Your task to perform on an android device: toggle pop-ups in chrome Image 0: 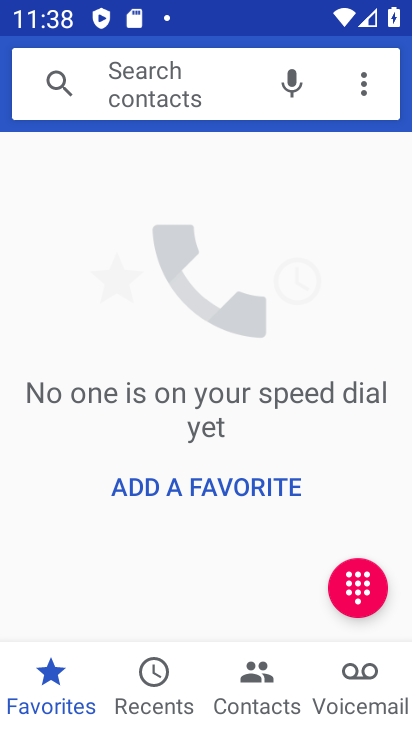
Step 0: press back button
Your task to perform on an android device: toggle pop-ups in chrome Image 1: 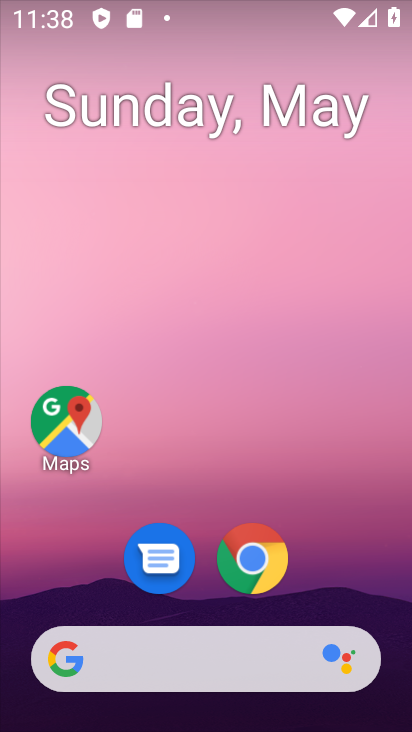
Step 1: drag from (347, 546) to (349, 107)
Your task to perform on an android device: toggle pop-ups in chrome Image 2: 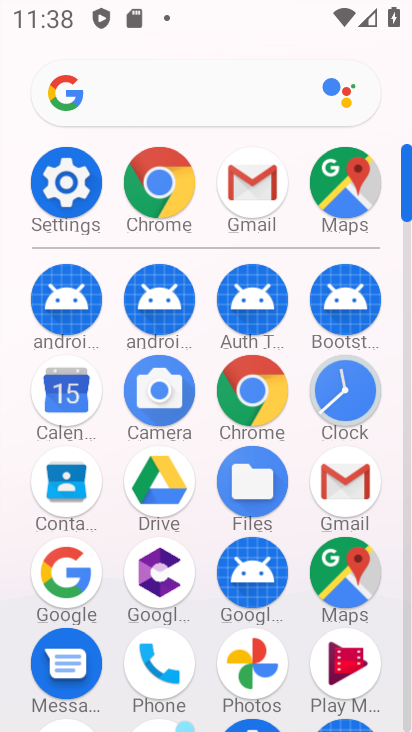
Step 2: click (266, 397)
Your task to perform on an android device: toggle pop-ups in chrome Image 3: 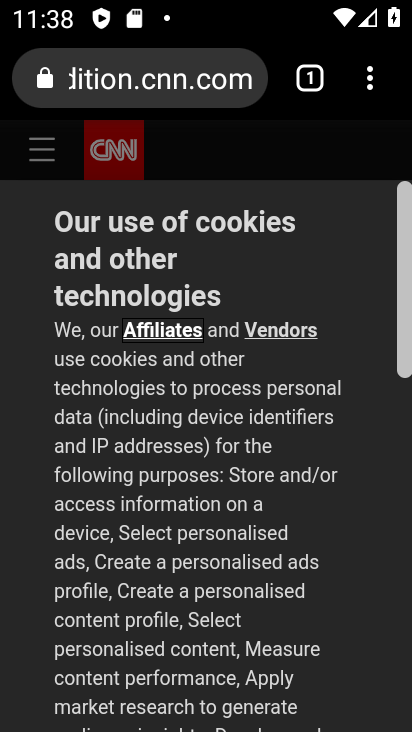
Step 3: click (365, 87)
Your task to perform on an android device: toggle pop-ups in chrome Image 4: 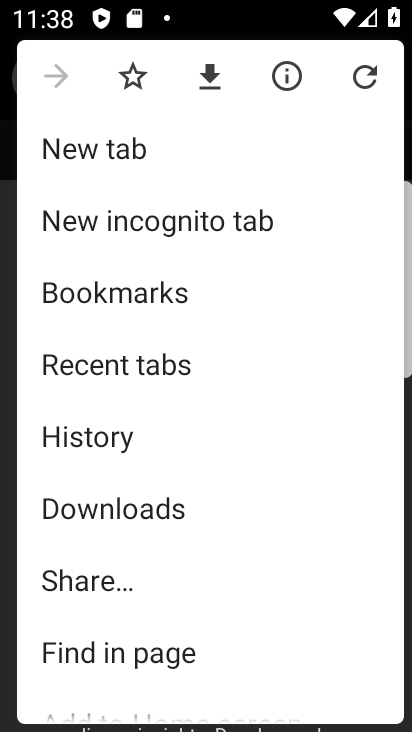
Step 4: drag from (311, 601) to (336, 421)
Your task to perform on an android device: toggle pop-ups in chrome Image 5: 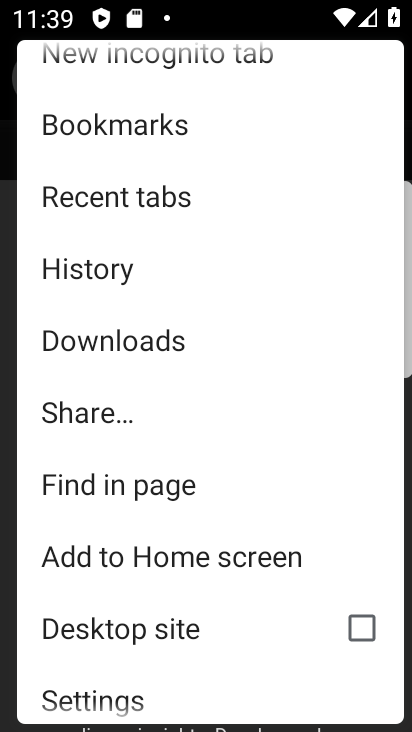
Step 5: drag from (298, 644) to (329, 428)
Your task to perform on an android device: toggle pop-ups in chrome Image 6: 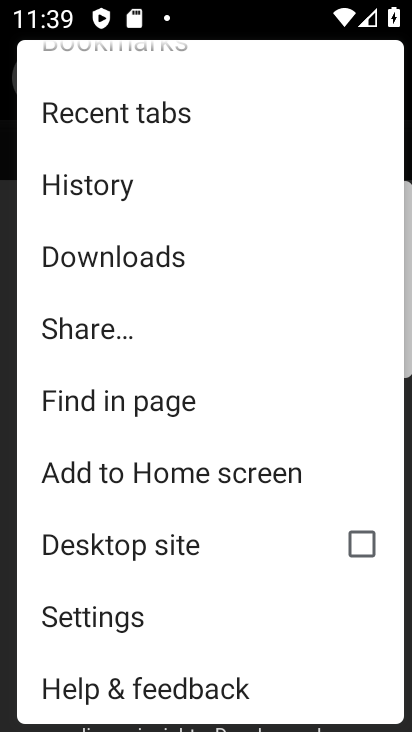
Step 6: click (141, 628)
Your task to perform on an android device: toggle pop-ups in chrome Image 7: 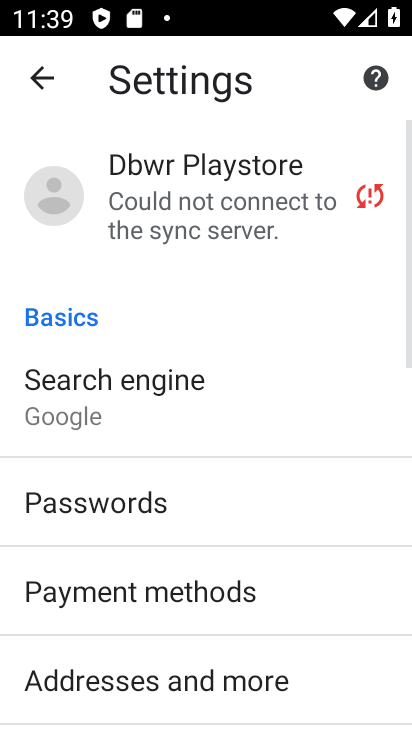
Step 7: drag from (347, 643) to (356, 455)
Your task to perform on an android device: toggle pop-ups in chrome Image 8: 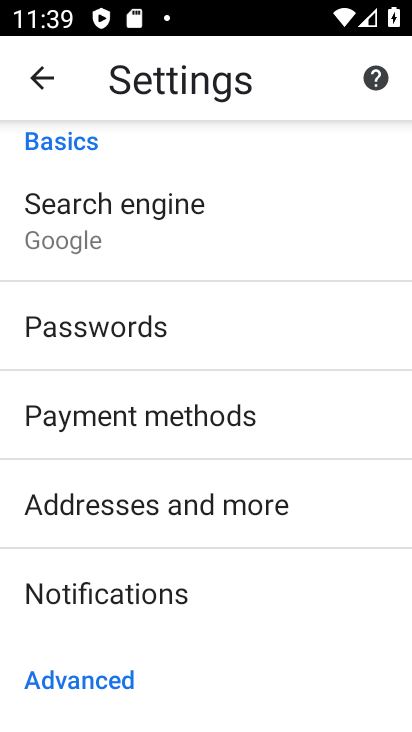
Step 8: drag from (326, 655) to (342, 458)
Your task to perform on an android device: toggle pop-ups in chrome Image 9: 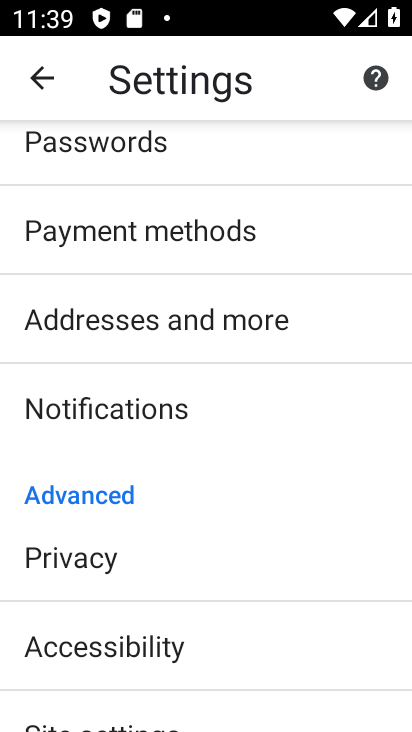
Step 9: drag from (328, 658) to (328, 457)
Your task to perform on an android device: toggle pop-ups in chrome Image 10: 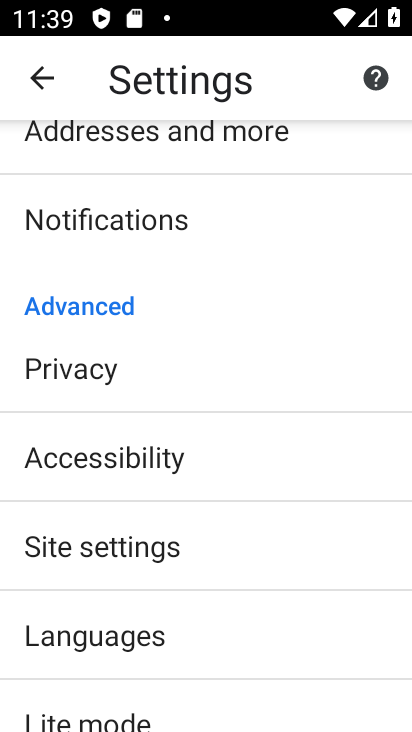
Step 10: drag from (321, 679) to (322, 471)
Your task to perform on an android device: toggle pop-ups in chrome Image 11: 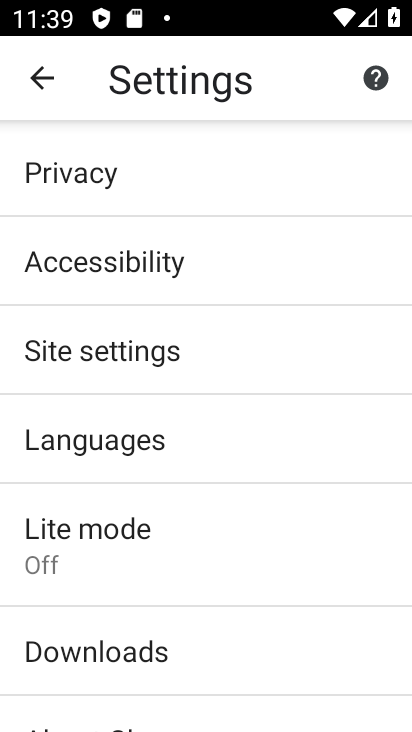
Step 11: drag from (302, 639) to (305, 407)
Your task to perform on an android device: toggle pop-ups in chrome Image 12: 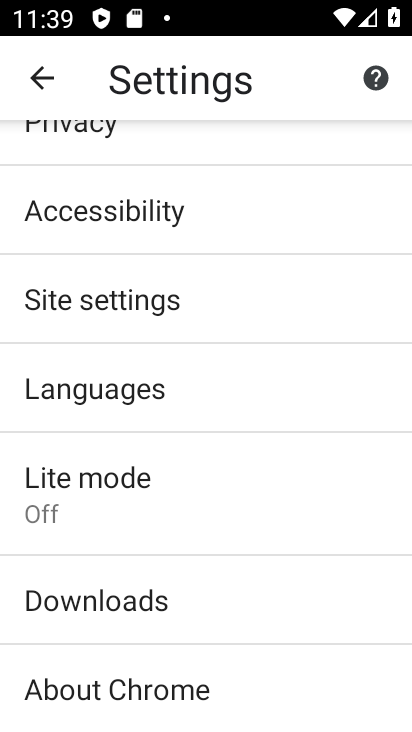
Step 12: click (171, 320)
Your task to perform on an android device: toggle pop-ups in chrome Image 13: 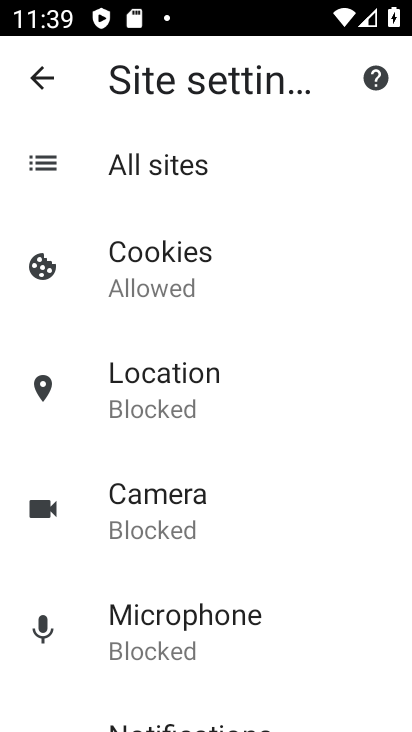
Step 13: drag from (330, 618) to (339, 296)
Your task to perform on an android device: toggle pop-ups in chrome Image 14: 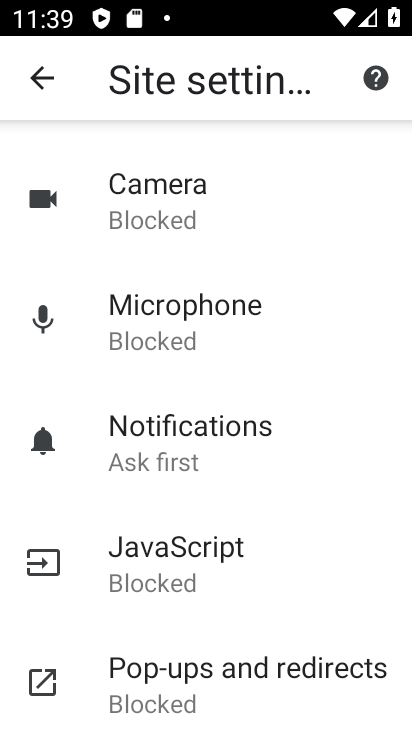
Step 14: drag from (346, 572) to (338, 269)
Your task to perform on an android device: toggle pop-ups in chrome Image 15: 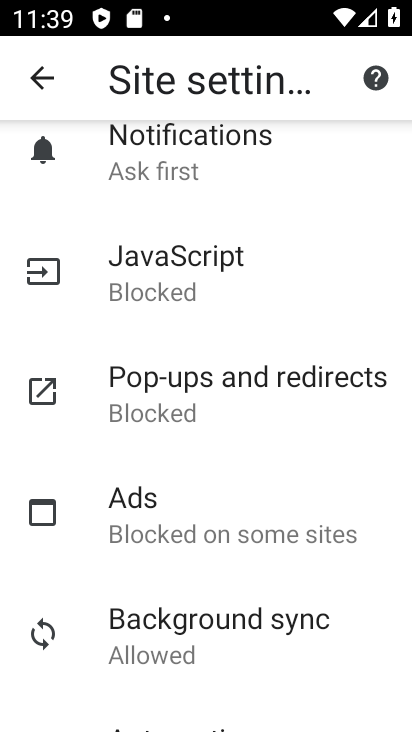
Step 15: drag from (348, 658) to (354, 316)
Your task to perform on an android device: toggle pop-ups in chrome Image 16: 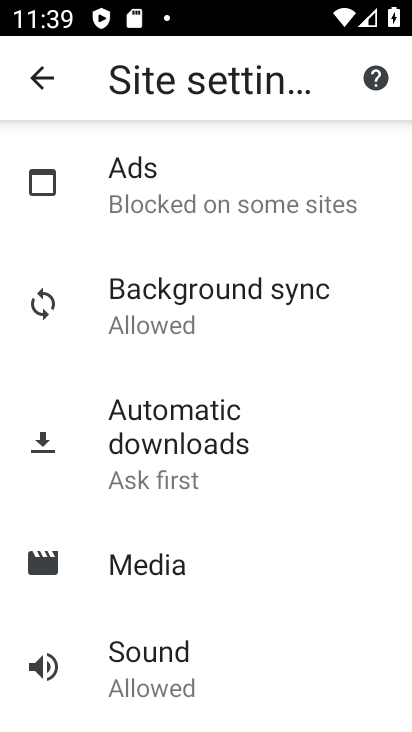
Step 16: drag from (361, 269) to (330, 568)
Your task to perform on an android device: toggle pop-ups in chrome Image 17: 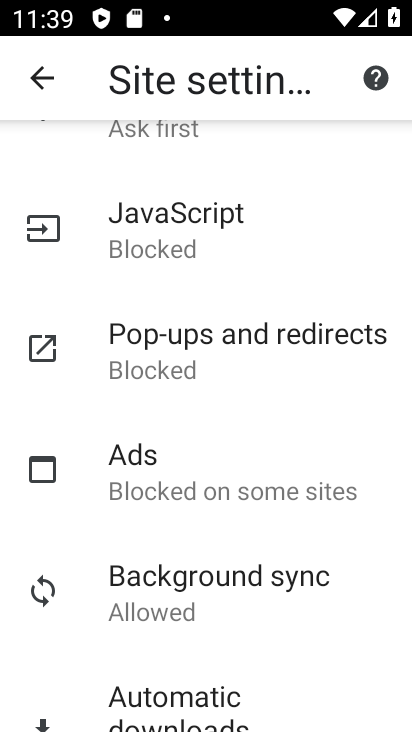
Step 17: drag from (342, 246) to (320, 545)
Your task to perform on an android device: toggle pop-ups in chrome Image 18: 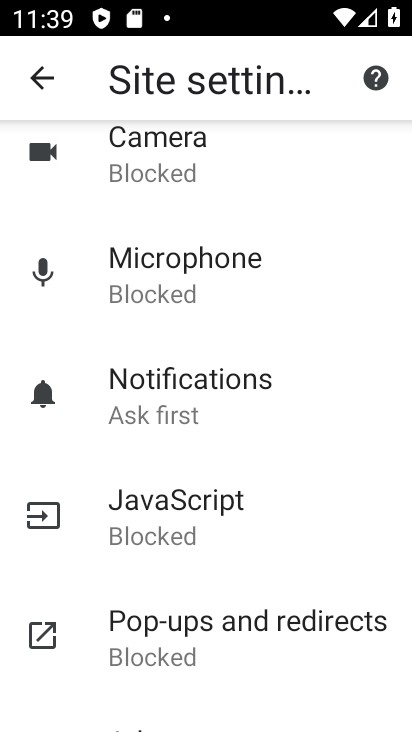
Step 18: drag from (323, 294) to (291, 525)
Your task to perform on an android device: toggle pop-ups in chrome Image 19: 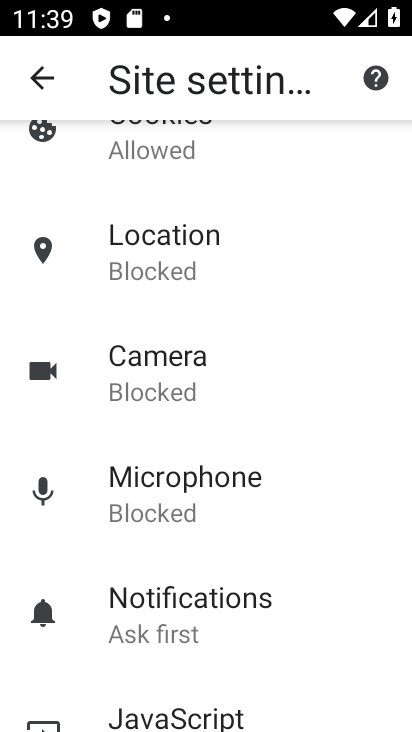
Step 19: drag from (324, 270) to (294, 535)
Your task to perform on an android device: toggle pop-ups in chrome Image 20: 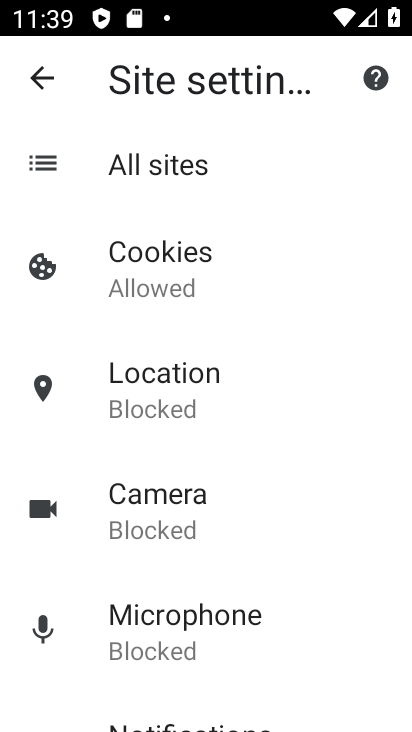
Step 20: drag from (304, 609) to (325, 327)
Your task to perform on an android device: toggle pop-ups in chrome Image 21: 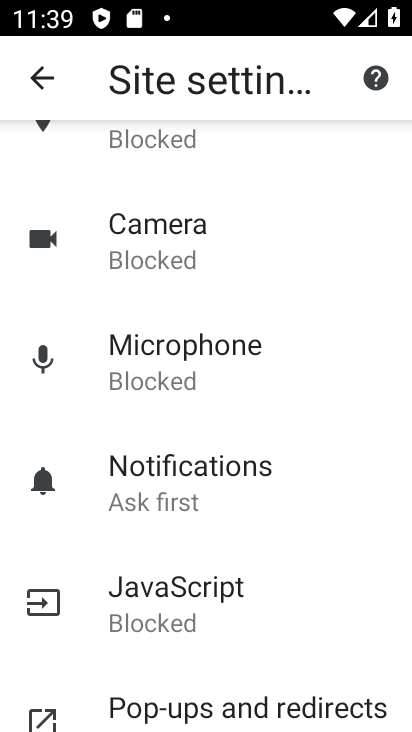
Step 21: drag from (317, 633) to (336, 358)
Your task to perform on an android device: toggle pop-ups in chrome Image 22: 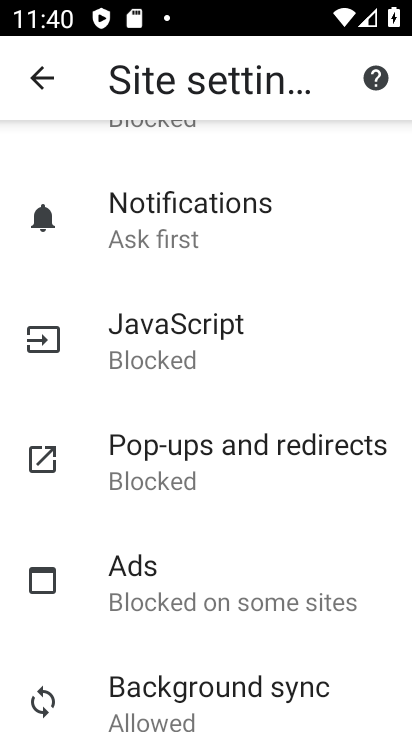
Step 22: click (272, 459)
Your task to perform on an android device: toggle pop-ups in chrome Image 23: 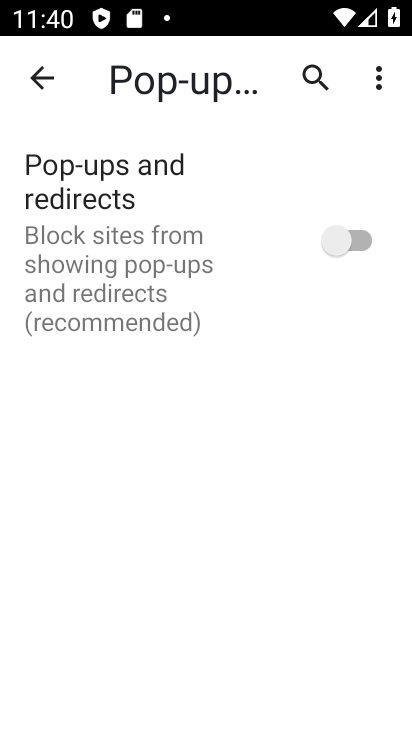
Step 23: click (341, 240)
Your task to perform on an android device: toggle pop-ups in chrome Image 24: 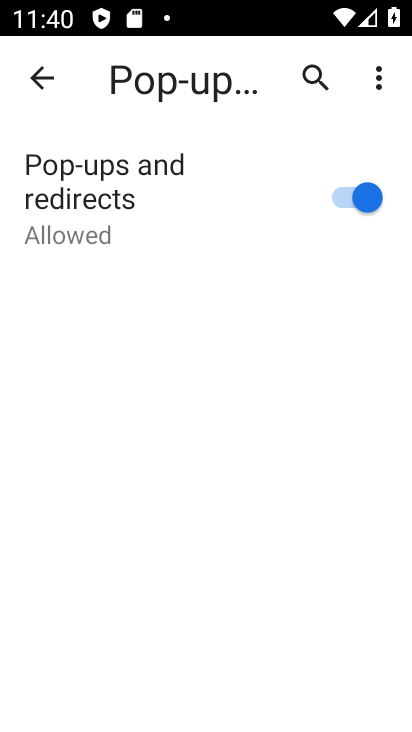
Step 24: task complete